Your task to perform on an android device: Go to Reddit.com Image 0: 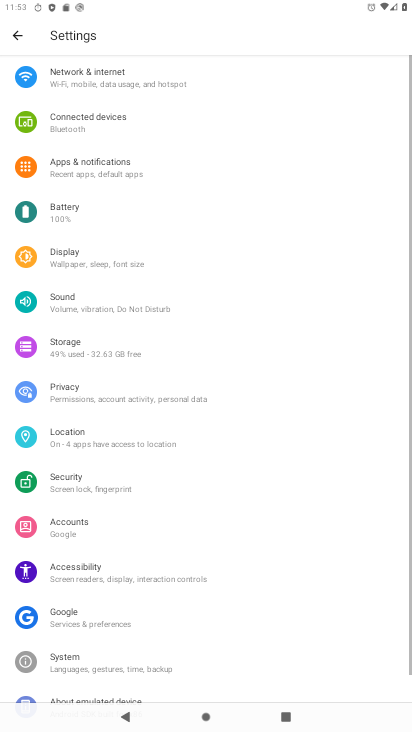
Step 0: press home button
Your task to perform on an android device: Go to Reddit.com Image 1: 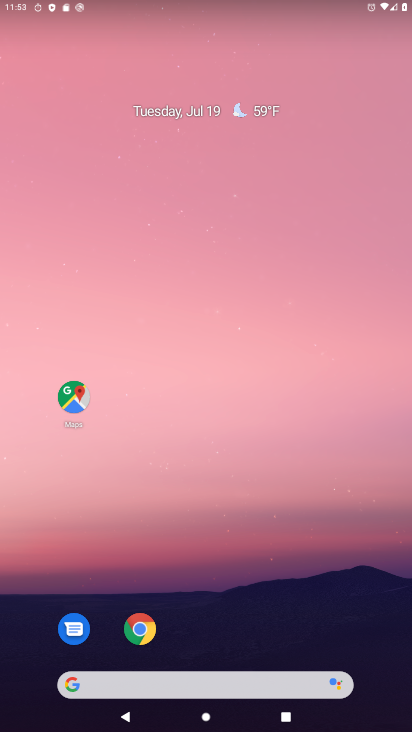
Step 1: drag from (225, 583) to (274, 0)
Your task to perform on an android device: Go to Reddit.com Image 2: 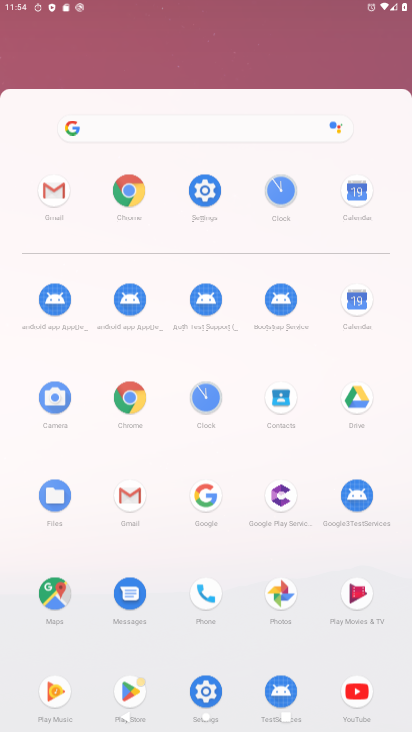
Step 2: click (149, 204)
Your task to perform on an android device: Go to Reddit.com Image 3: 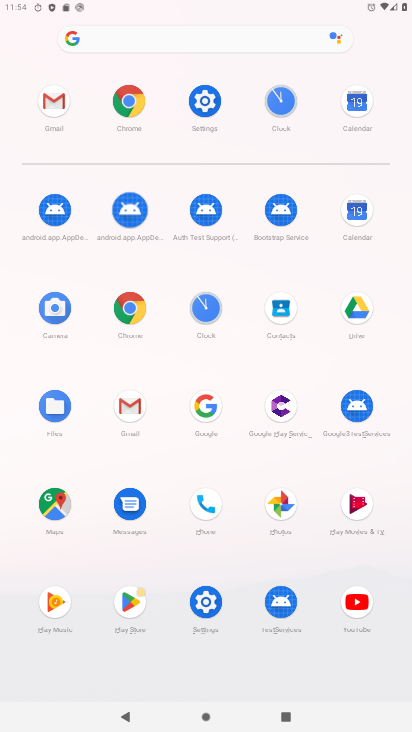
Step 3: click (134, 166)
Your task to perform on an android device: Go to Reddit.com Image 4: 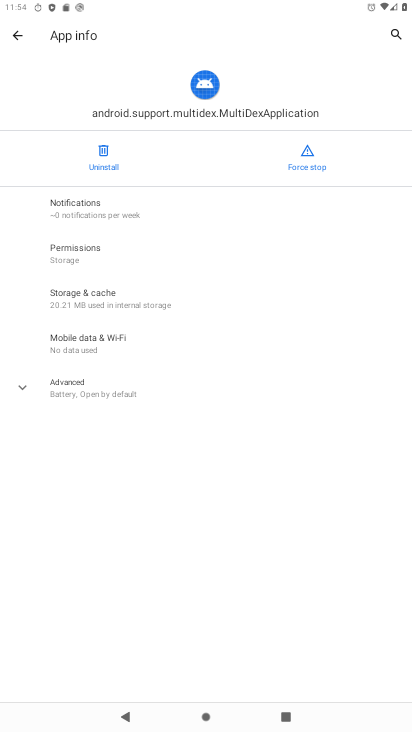
Step 4: click (21, 41)
Your task to perform on an android device: Go to Reddit.com Image 5: 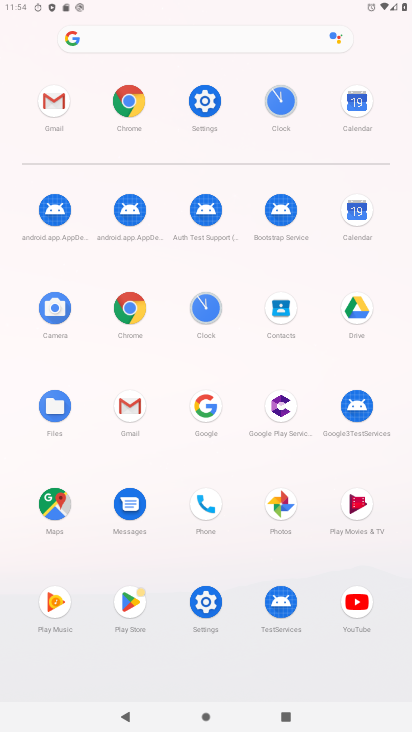
Step 5: click (122, 114)
Your task to perform on an android device: Go to Reddit.com Image 6: 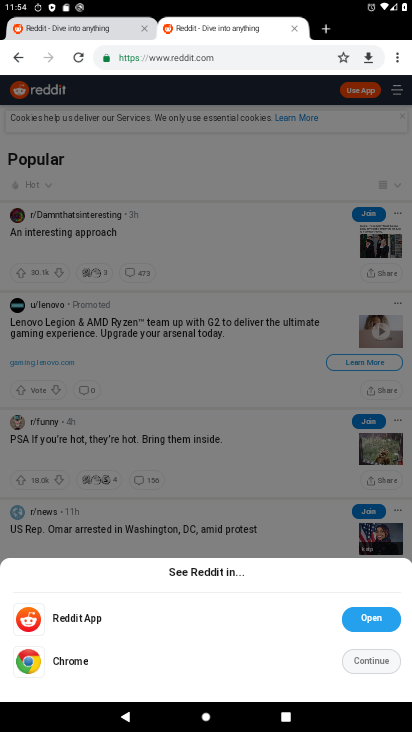
Step 6: click (329, 32)
Your task to perform on an android device: Go to Reddit.com Image 7: 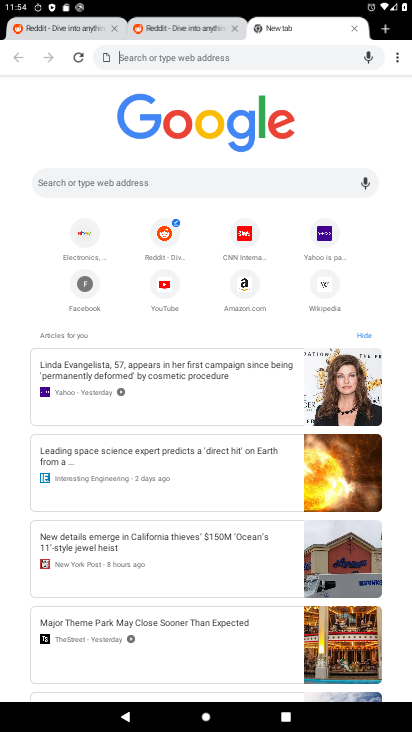
Step 7: click (131, 187)
Your task to perform on an android device: Go to Reddit.com Image 8: 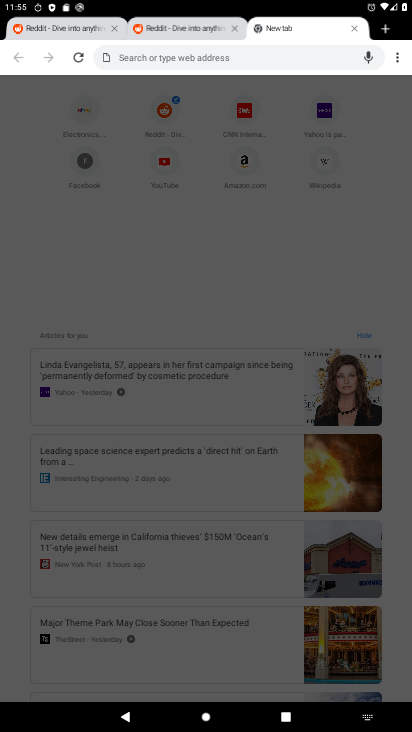
Step 8: type "Reddit.com"
Your task to perform on an android device: Go to Reddit.com Image 9: 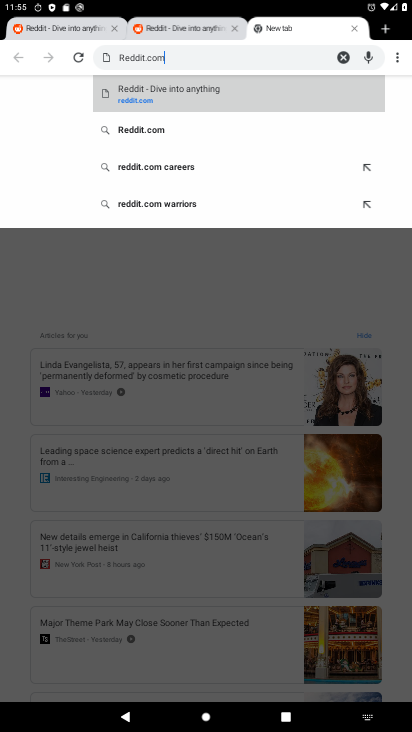
Step 9: press enter
Your task to perform on an android device: Go to Reddit.com Image 10: 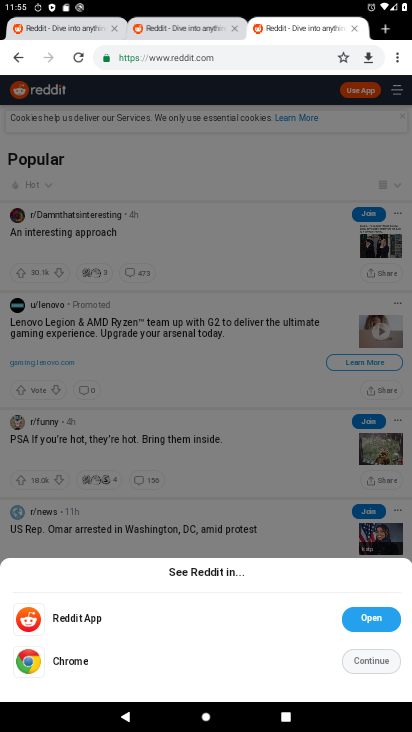
Step 10: task complete